Your task to perform on an android device: change timer sound Image 0: 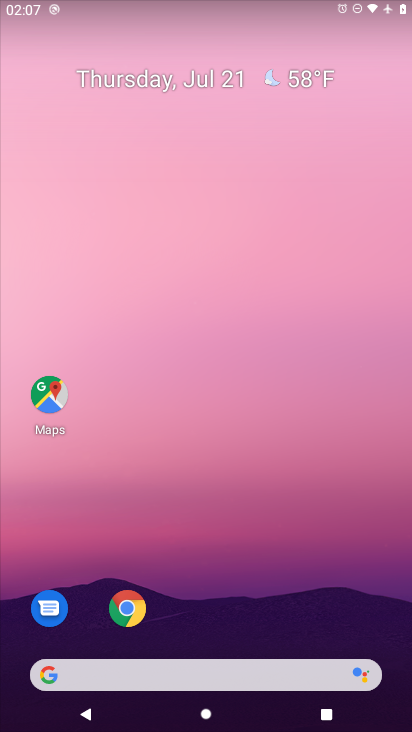
Step 0: press home button
Your task to perform on an android device: change timer sound Image 1: 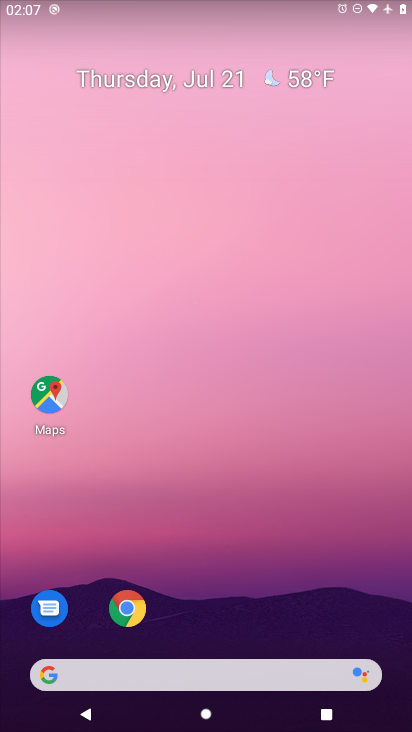
Step 1: press home button
Your task to perform on an android device: change timer sound Image 2: 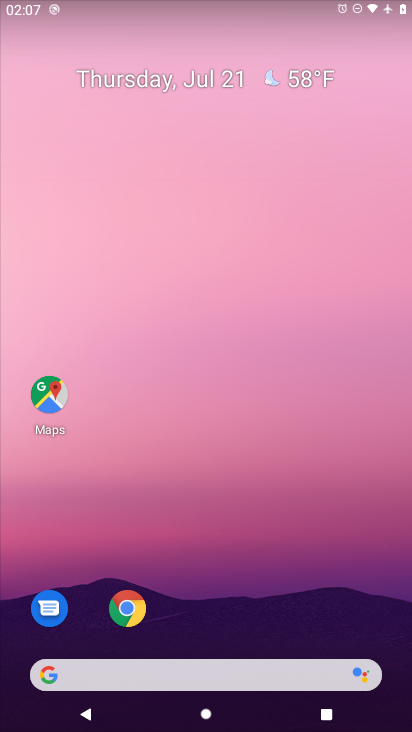
Step 2: drag from (207, 614) to (88, 92)
Your task to perform on an android device: change timer sound Image 3: 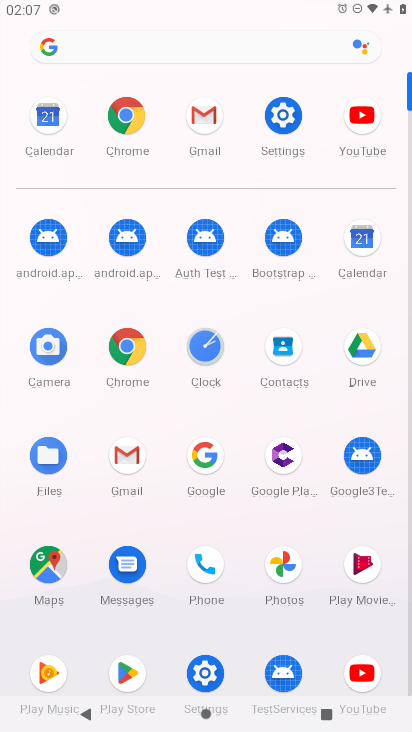
Step 3: click (203, 357)
Your task to perform on an android device: change timer sound Image 4: 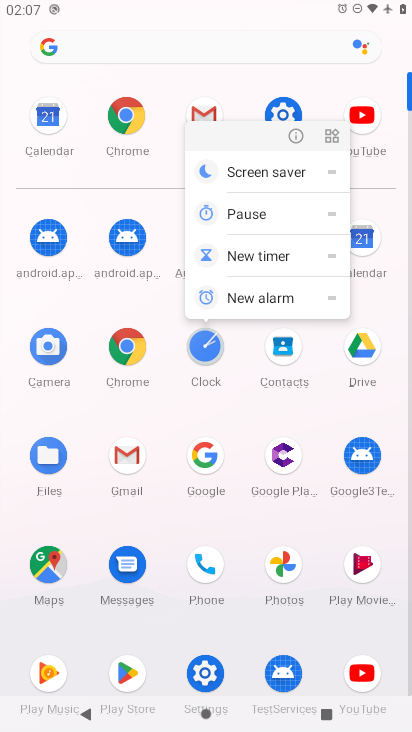
Step 4: click (203, 357)
Your task to perform on an android device: change timer sound Image 5: 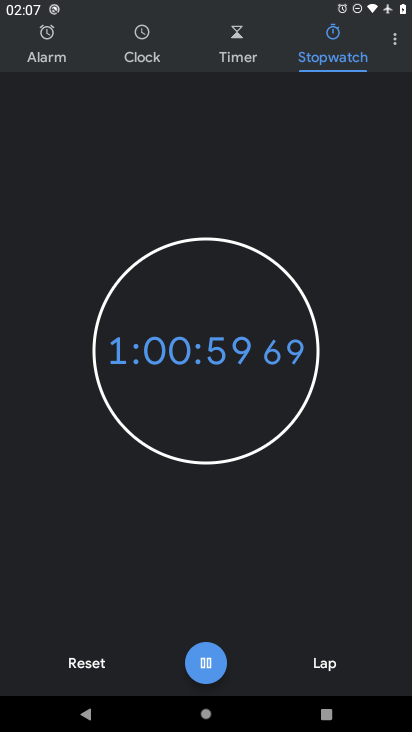
Step 5: click (387, 41)
Your task to perform on an android device: change timer sound Image 6: 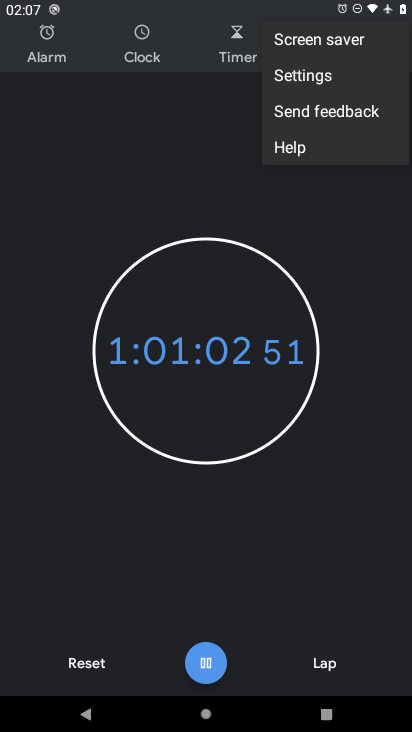
Step 6: click (318, 82)
Your task to perform on an android device: change timer sound Image 7: 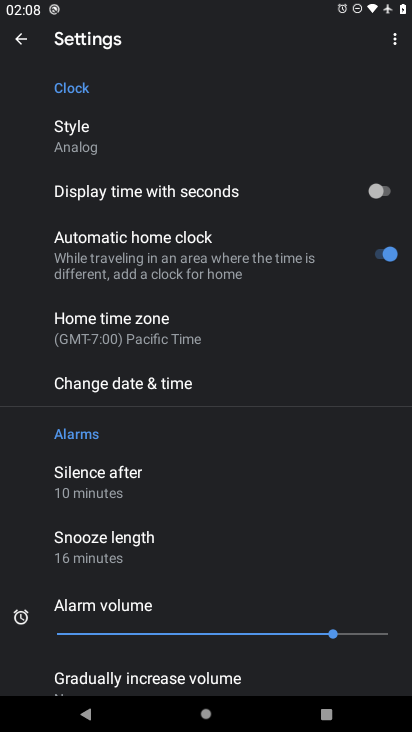
Step 7: drag from (352, 510) to (328, 11)
Your task to perform on an android device: change timer sound Image 8: 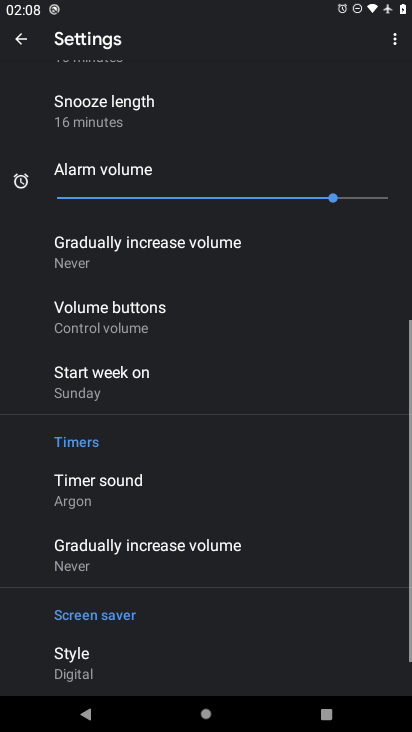
Step 8: click (100, 478)
Your task to perform on an android device: change timer sound Image 9: 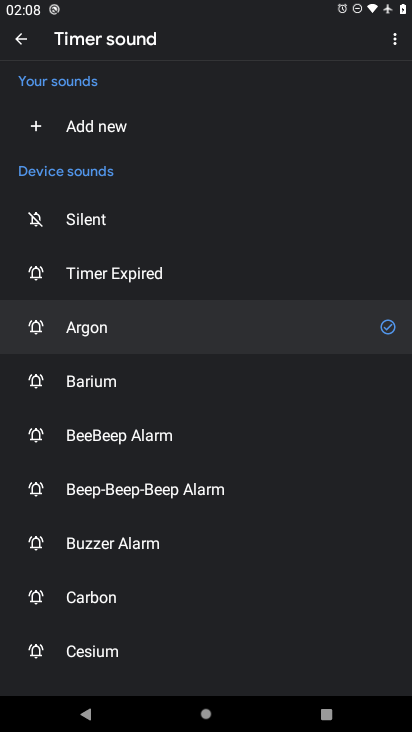
Step 9: click (103, 442)
Your task to perform on an android device: change timer sound Image 10: 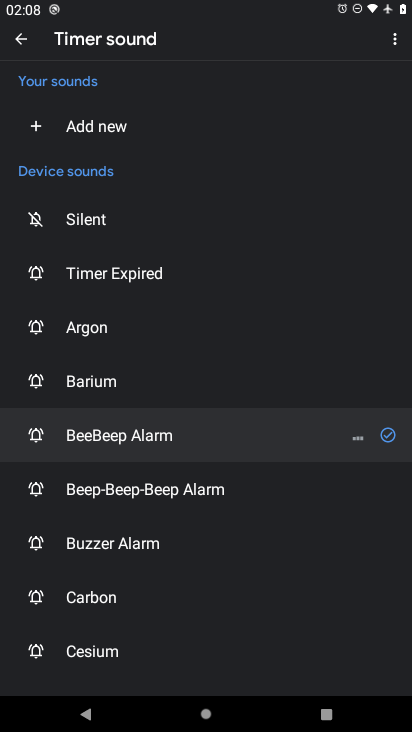
Step 10: task complete